Your task to perform on an android device: What's on my calendar today? Image 0: 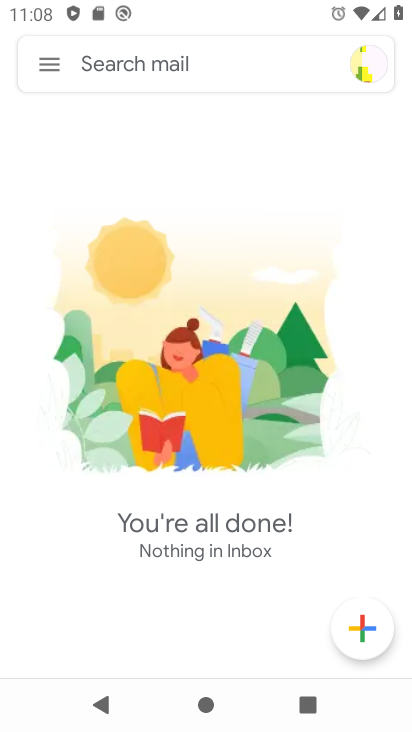
Step 0: press back button
Your task to perform on an android device: What's on my calendar today? Image 1: 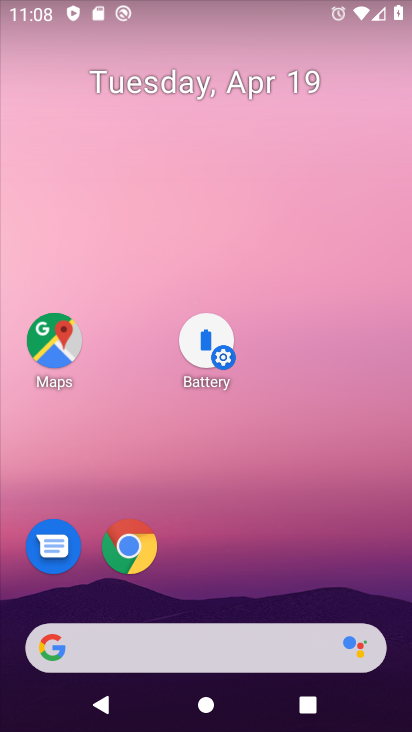
Step 1: drag from (221, 553) to (275, 98)
Your task to perform on an android device: What's on my calendar today? Image 2: 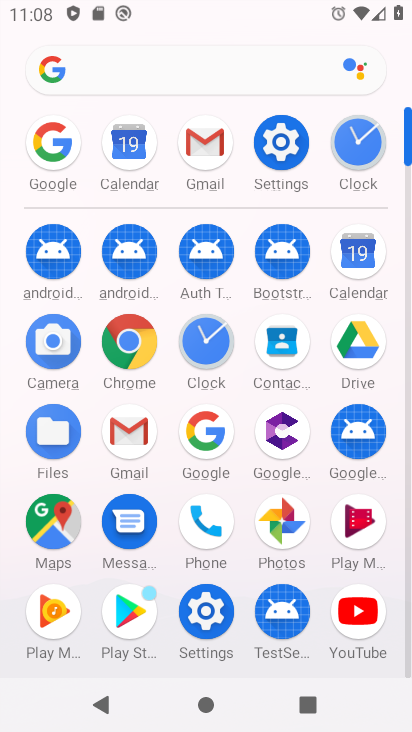
Step 2: click (135, 142)
Your task to perform on an android device: What's on my calendar today? Image 3: 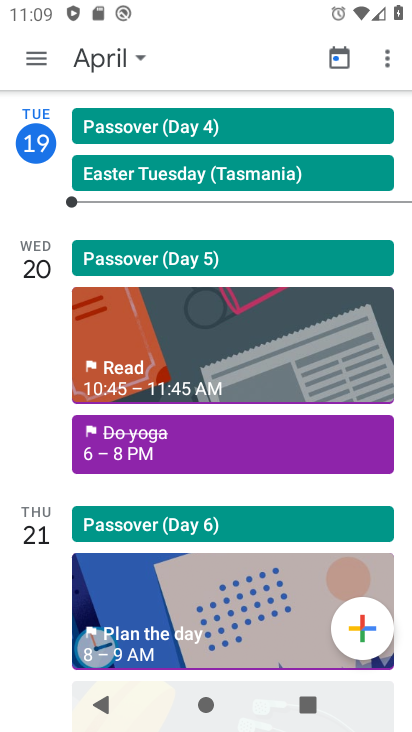
Step 3: task complete